Your task to perform on an android device: delete a single message in the gmail app Image 0: 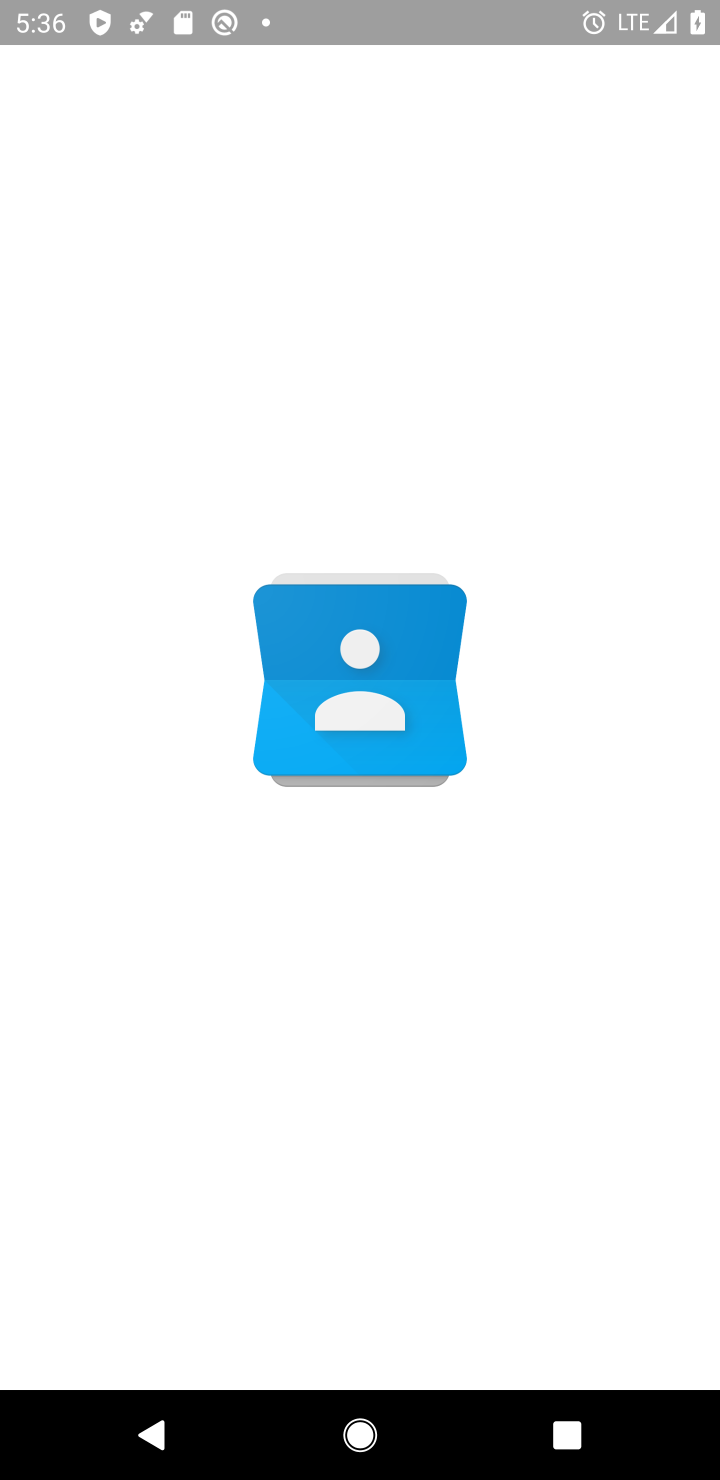
Step 0: press home button
Your task to perform on an android device: delete a single message in the gmail app Image 1: 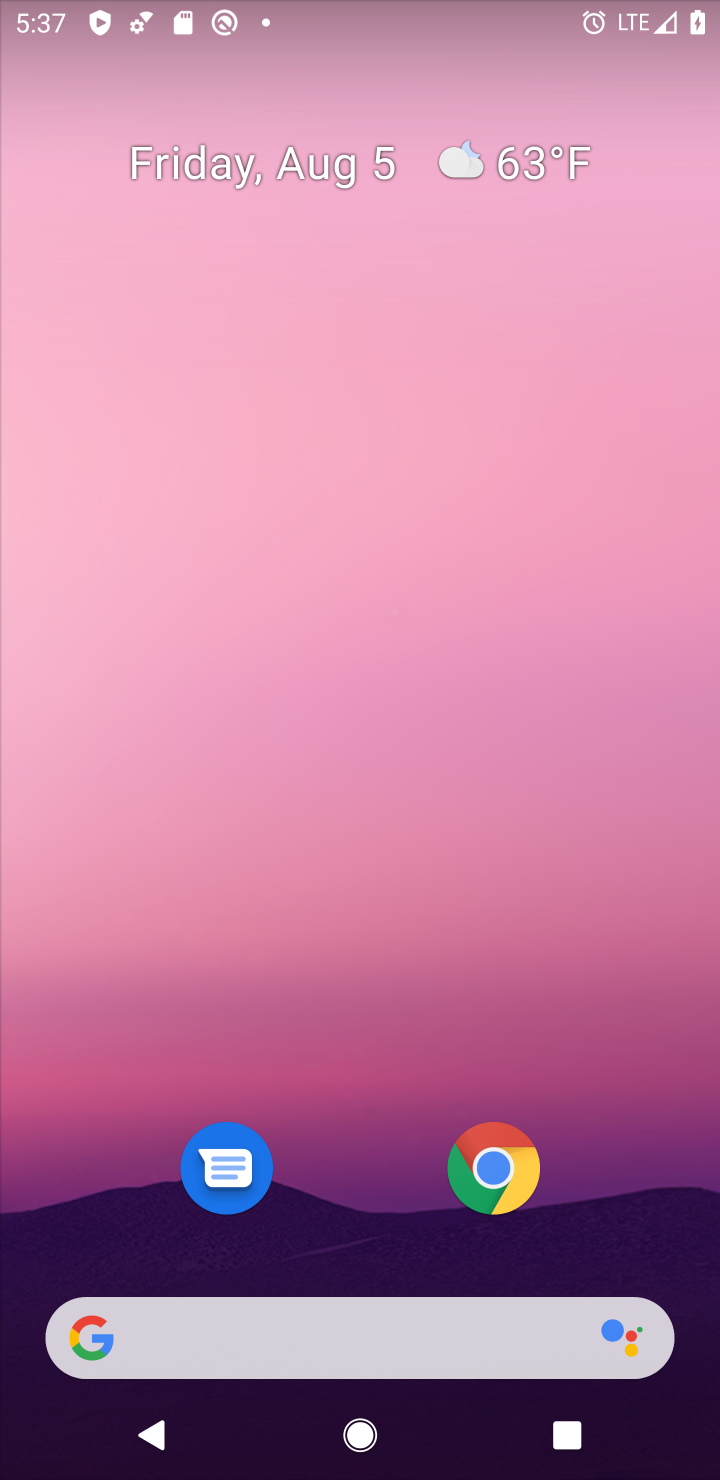
Step 1: click (324, 129)
Your task to perform on an android device: delete a single message in the gmail app Image 2: 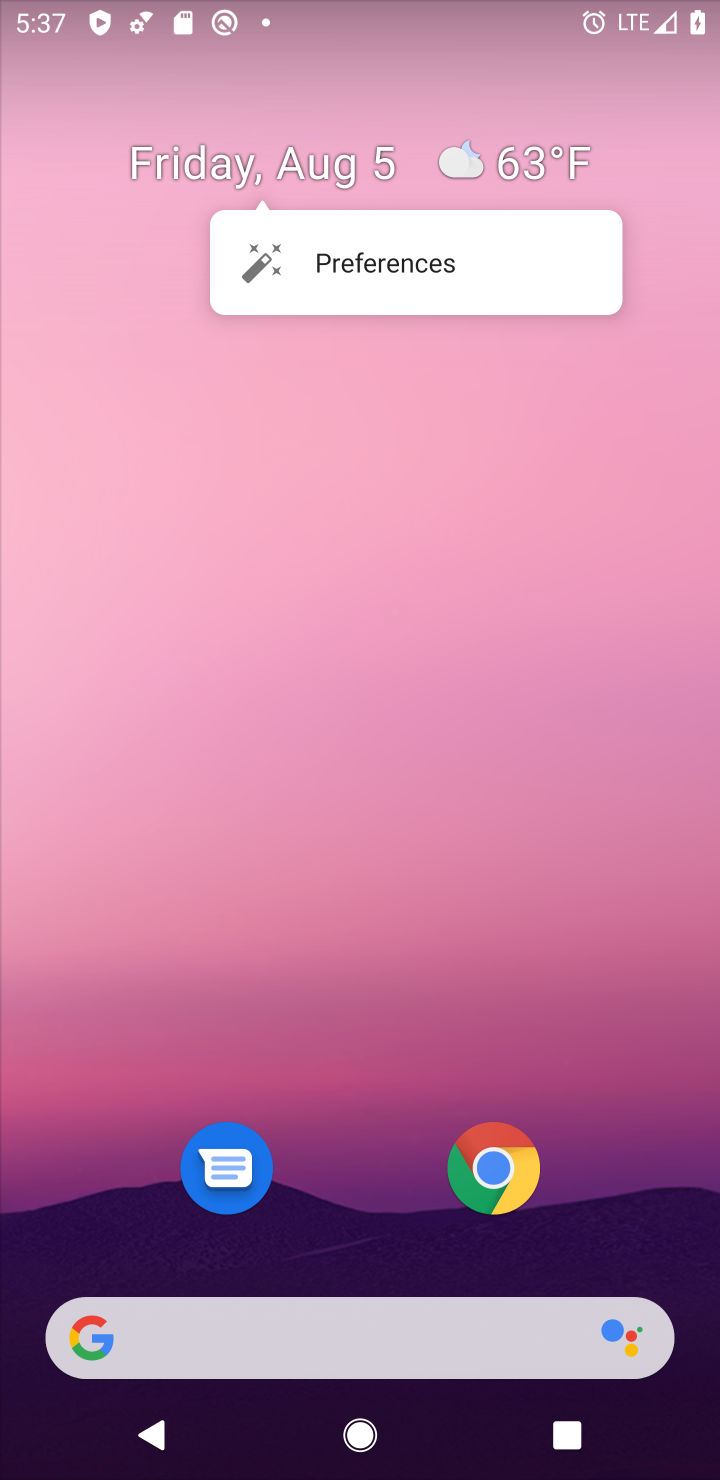
Step 2: drag from (394, 958) to (383, 42)
Your task to perform on an android device: delete a single message in the gmail app Image 3: 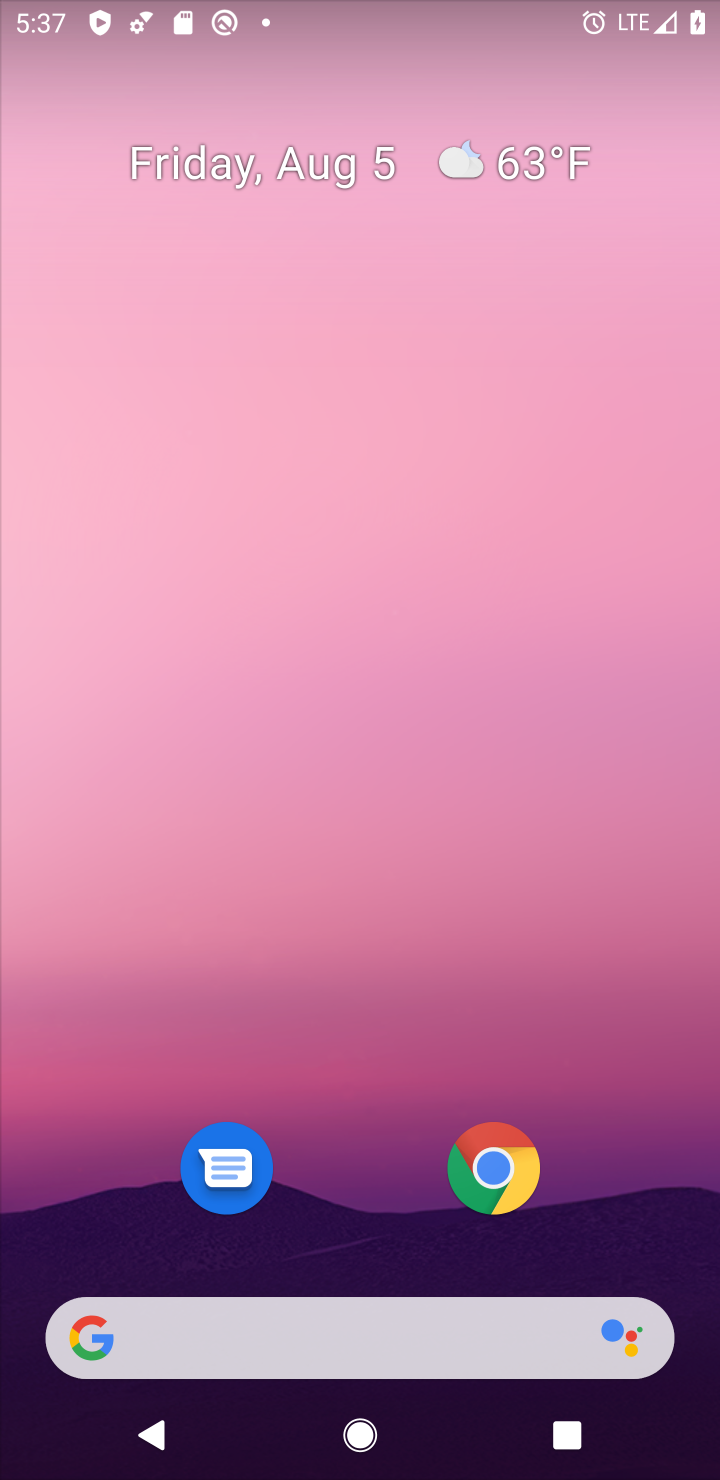
Step 3: drag from (298, 1256) to (447, 6)
Your task to perform on an android device: delete a single message in the gmail app Image 4: 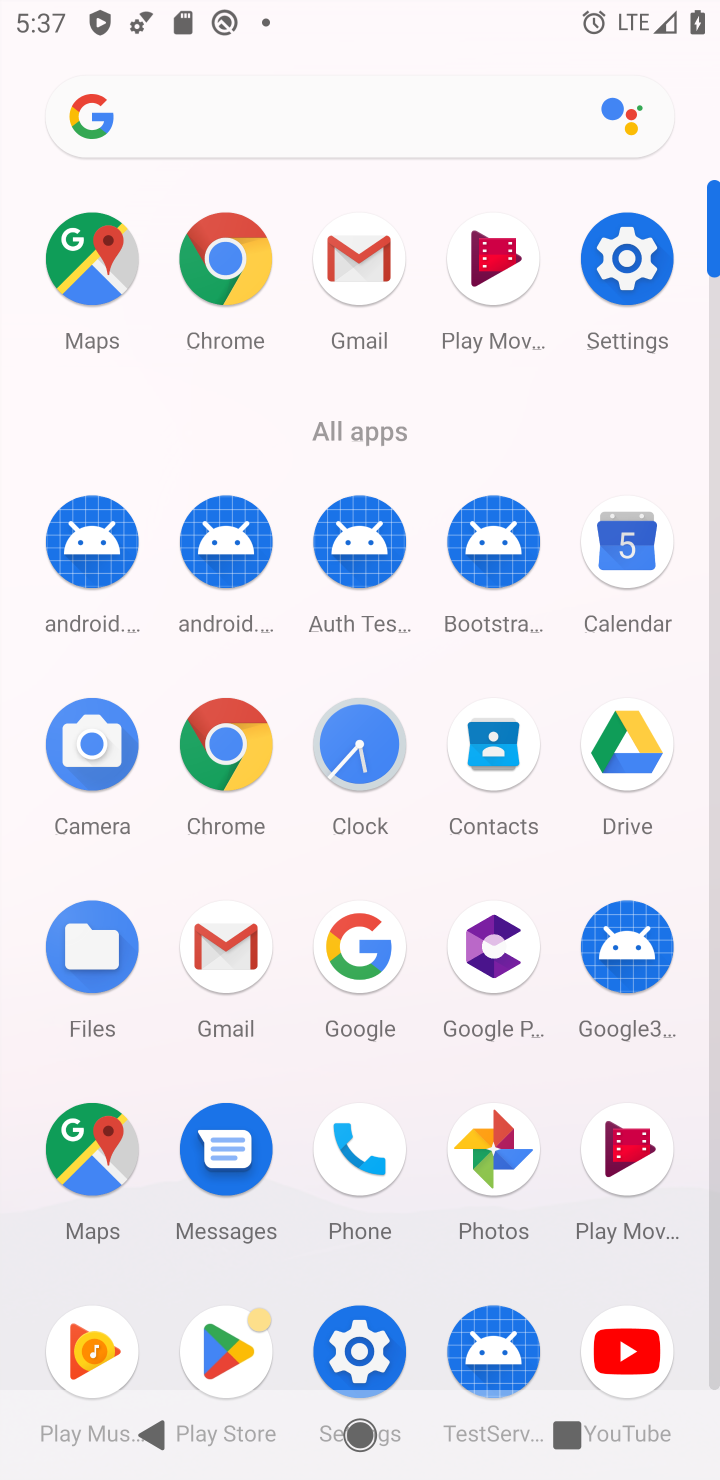
Step 4: click (349, 268)
Your task to perform on an android device: delete a single message in the gmail app Image 5: 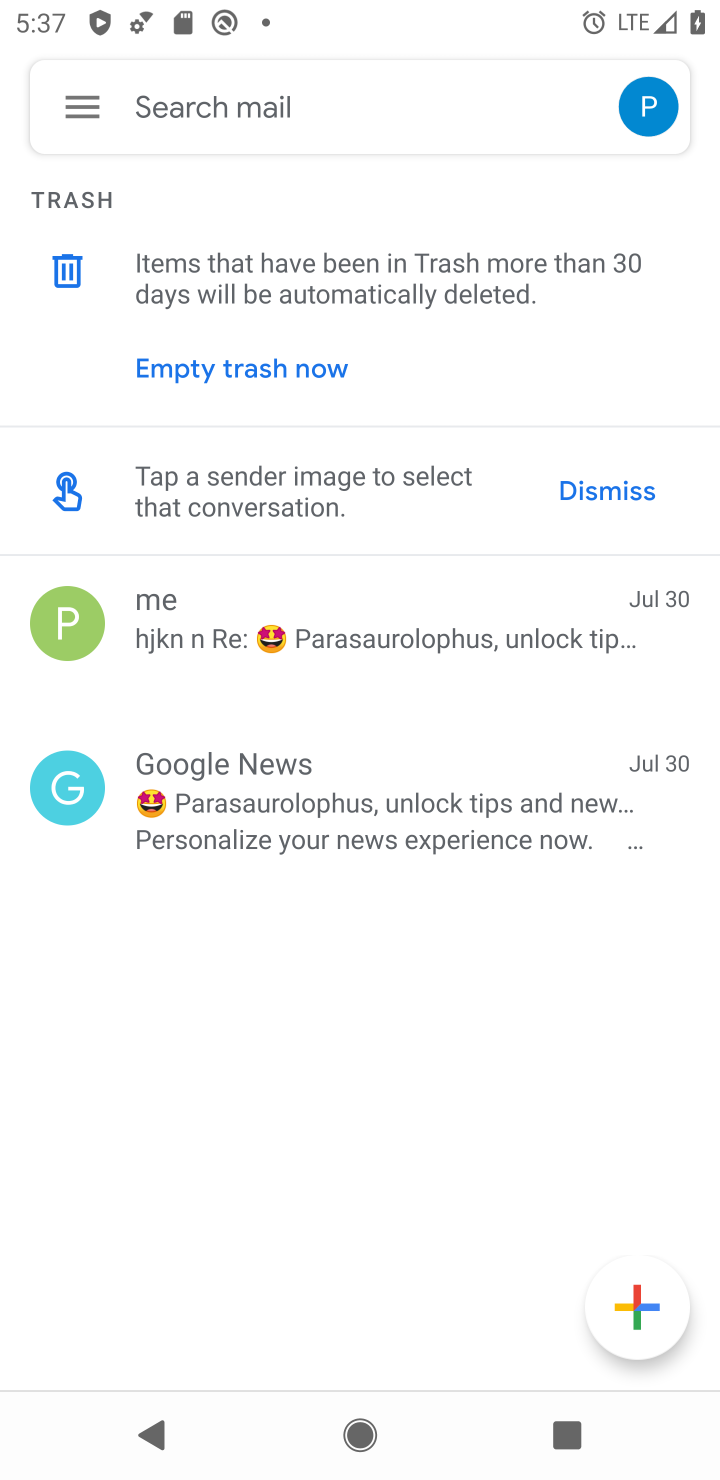
Step 5: click (61, 91)
Your task to perform on an android device: delete a single message in the gmail app Image 6: 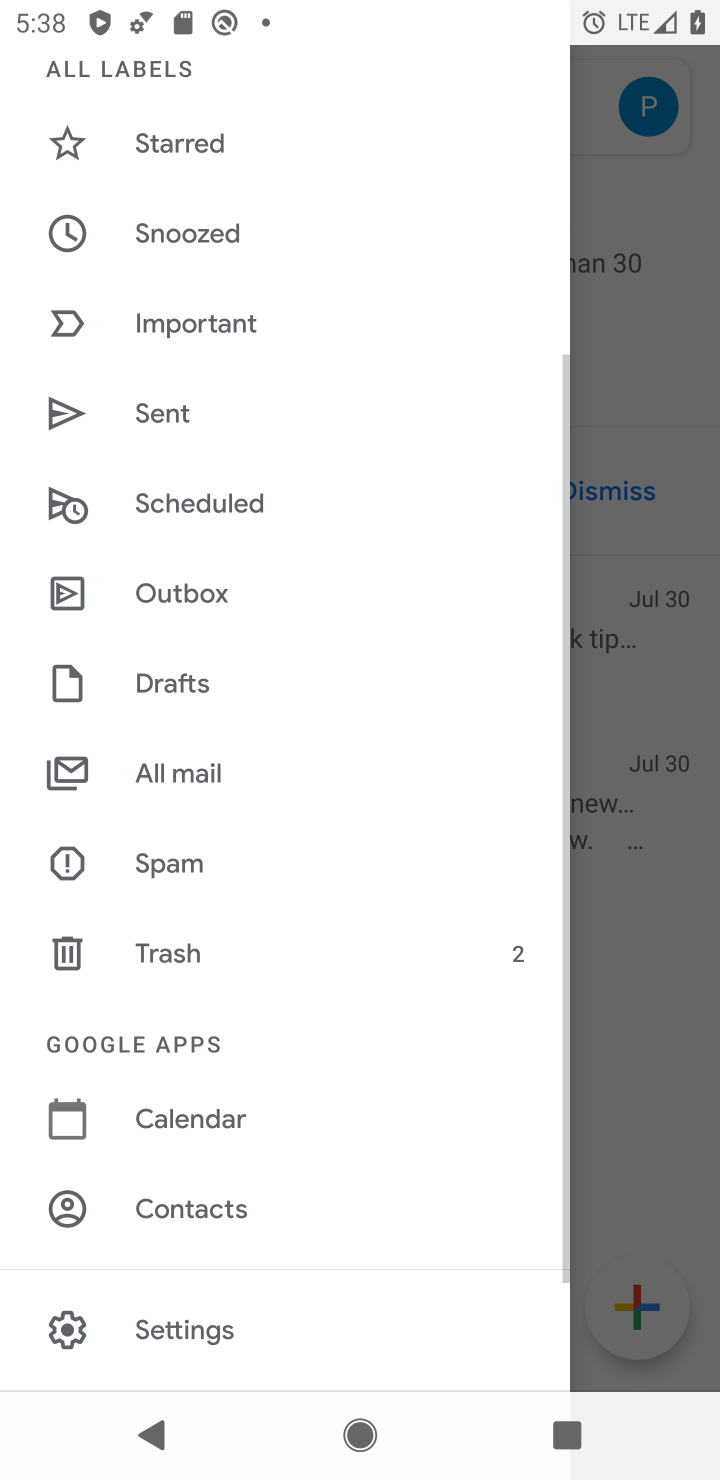
Step 6: click (179, 765)
Your task to perform on an android device: delete a single message in the gmail app Image 7: 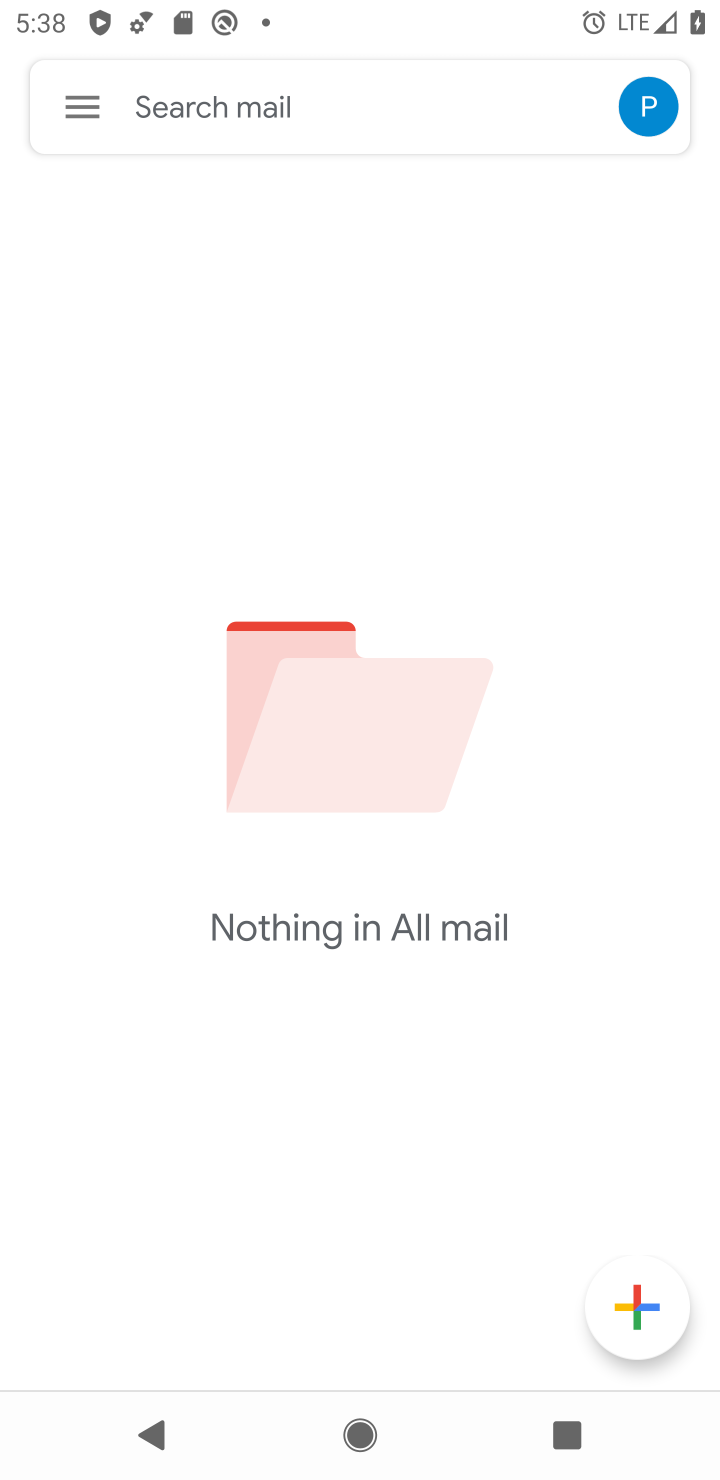
Step 7: task complete